Your task to perform on an android device: Open Google Chrome and open the bookmarks view Image 0: 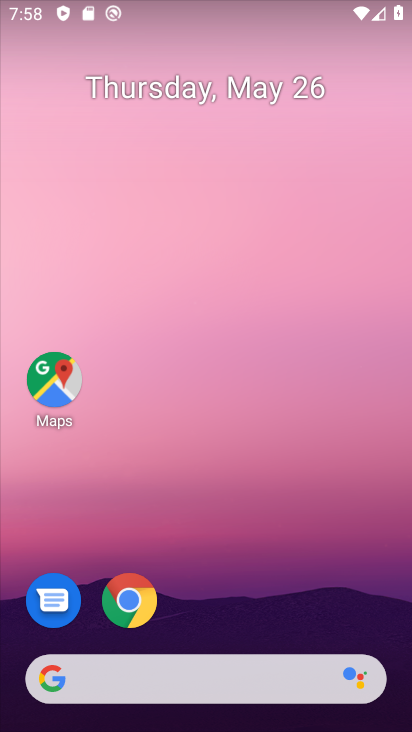
Step 0: click (129, 598)
Your task to perform on an android device: Open Google Chrome and open the bookmarks view Image 1: 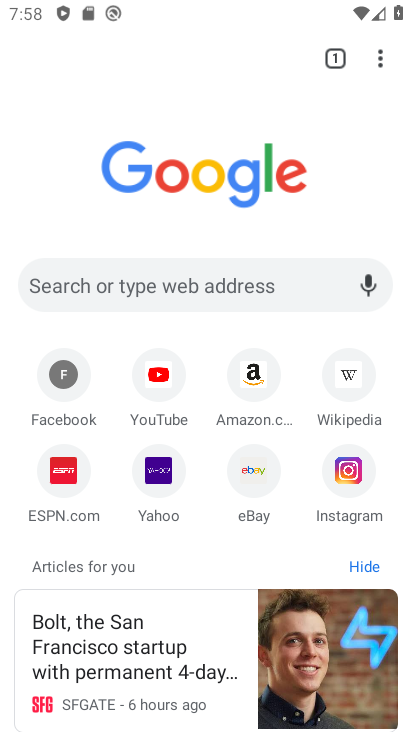
Step 1: click (390, 56)
Your task to perform on an android device: Open Google Chrome and open the bookmarks view Image 2: 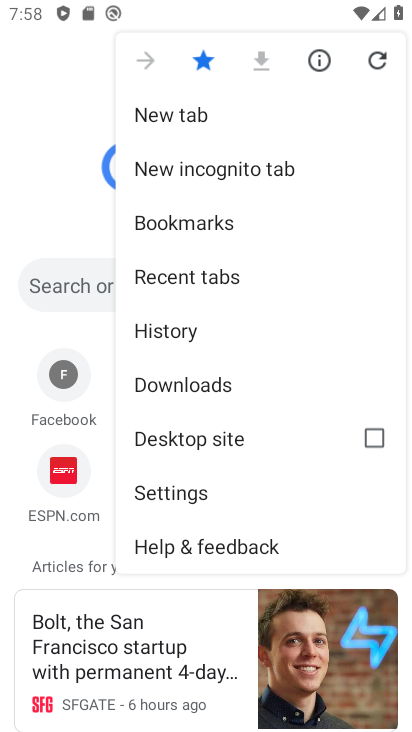
Step 2: click (203, 208)
Your task to perform on an android device: Open Google Chrome and open the bookmarks view Image 3: 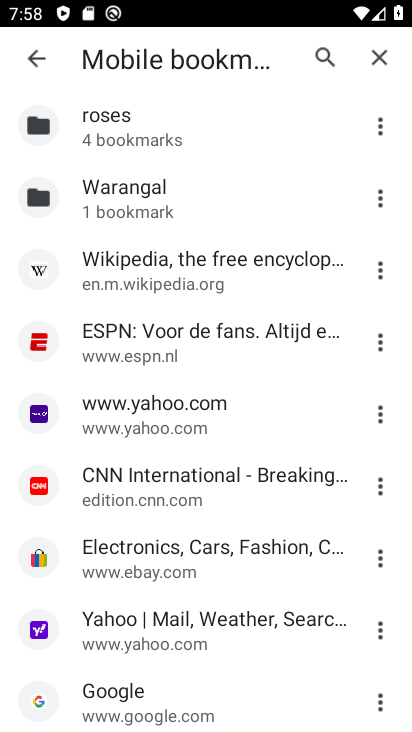
Step 3: task complete